Your task to perform on an android device: Add logitech g pro to the cart on costco Image 0: 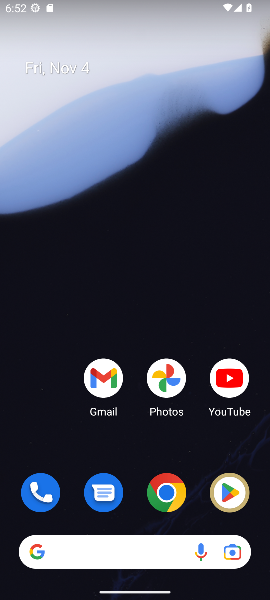
Step 0: drag from (131, 450) to (146, 0)
Your task to perform on an android device: Add logitech g pro to the cart on costco Image 1: 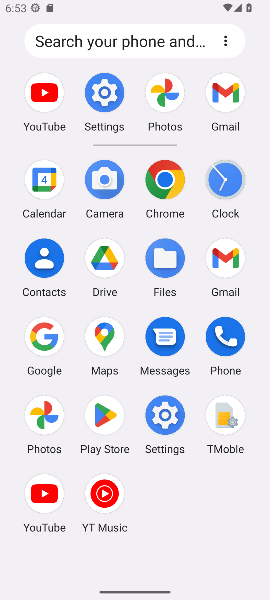
Step 1: click (167, 185)
Your task to perform on an android device: Add logitech g pro to the cart on costco Image 2: 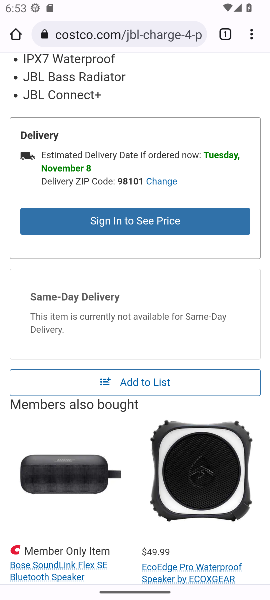
Step 2: click (114, 27)
Your task to perform on an android device: Add logitech g pro to the cart on costco Image 3: 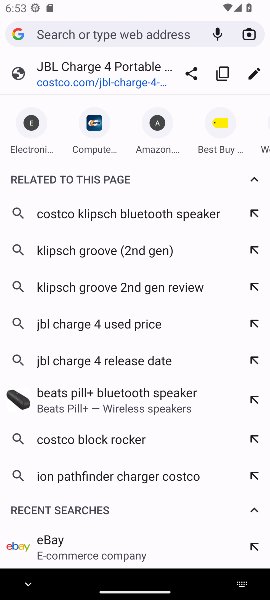
Step 3: type "costco.com"
Your task to perform on an android device: Add logitech g pro to the cart on costco Image 4: 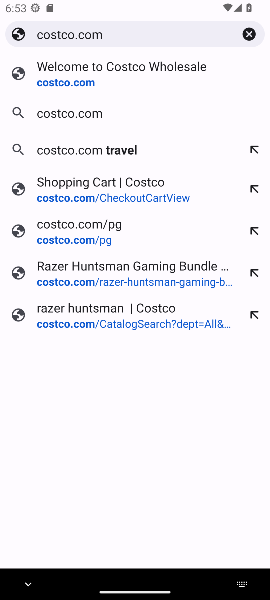
Step 4: press enter
Your task to perform on an android device: Add logitech g pro to the cart on costco Image 5: 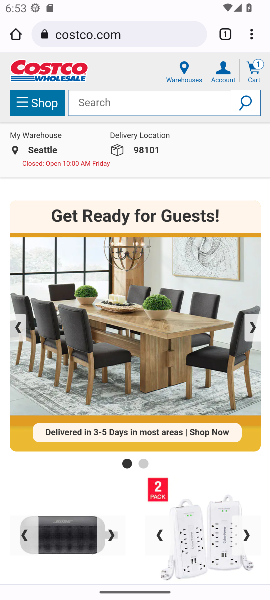
Step 5: click (131, 99)
Your task to perform on an android device: Add logitech g pro to the cart on costco Image 6: 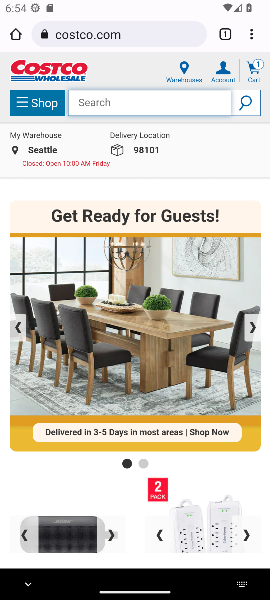
Step 6: type "logitech g pro"
Your task to perform on an android device: Add logitech g pro to the cart on costco Image 7: 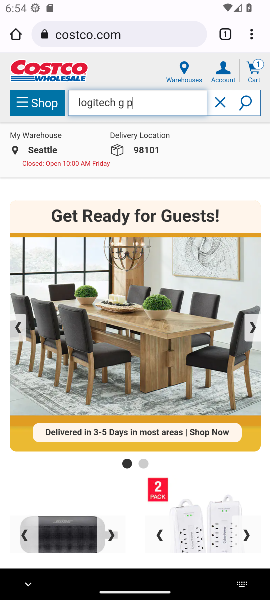
Step 7: press enter
Your task to perform on an android device: Add logitech g pro to the cart on costco Image 8: 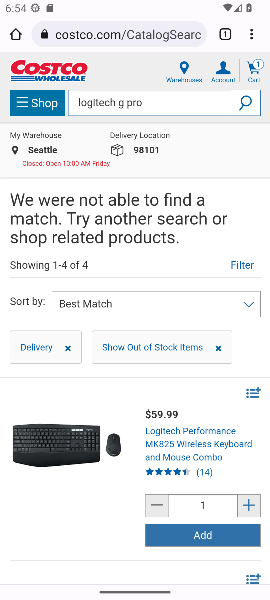
Step 8: task complete